Your task to perform on an android device: change notification settings in the gmail app Image 0: 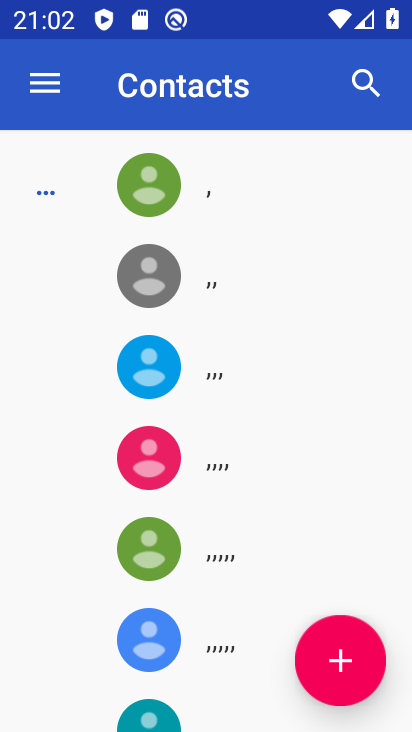
Step 0: press back button
Your task to perform on an android device: change notification settings in the gmail app Image 1: 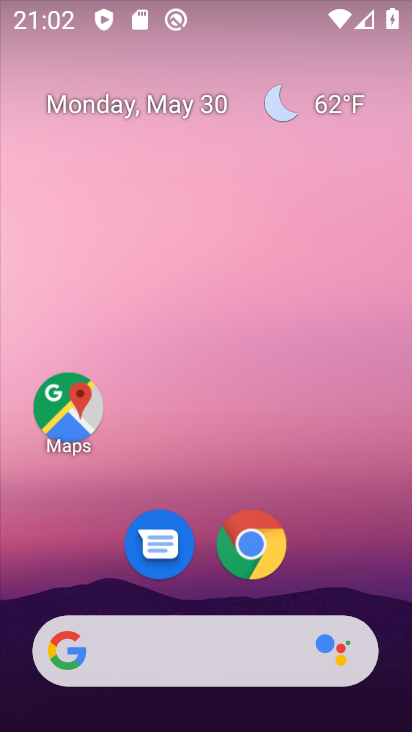
Step 1: drag from (340, 571) to (368, 251)
Your task to perform on an android device: change notification settings in the gmail app Image 2: 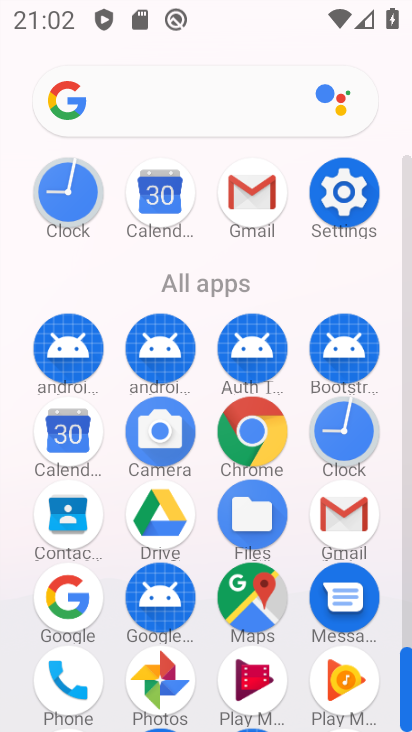
Step 2: click (249, 190)
Your task to perform on an android device: change notification settings in the gmail app Image 3: 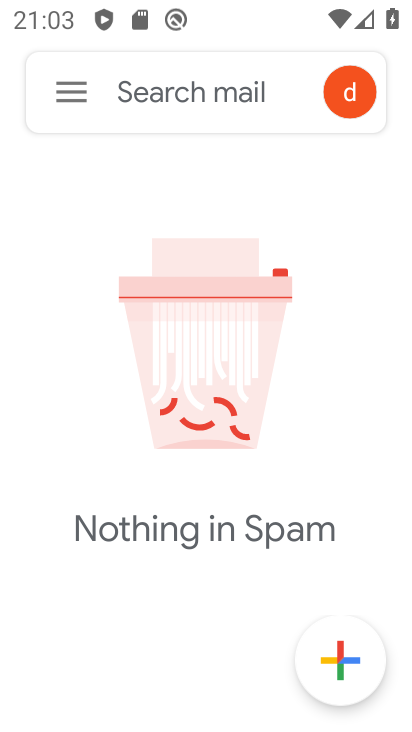
Step 3: click (69, 99)
Your task to perform on an android device: change notification settings in the gmail app Image 4: 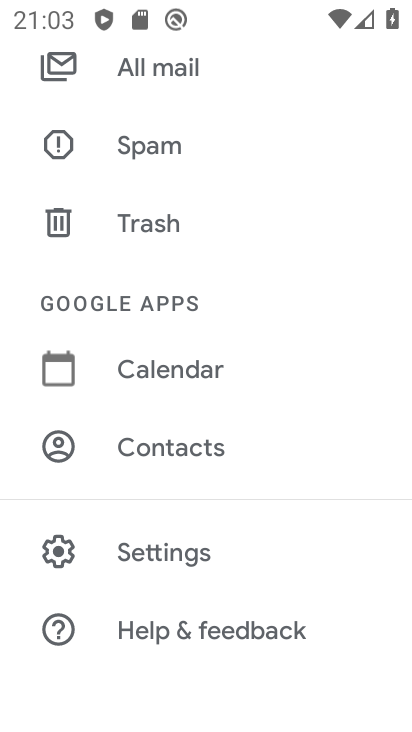
Step 4: click (180, 563)
Your task to perform on an android device: change notification settings in the gmail app Image 5: 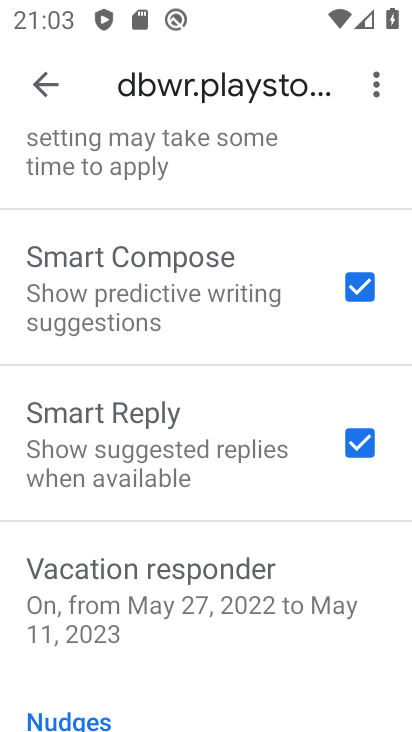
Step 5: drag from (166, 676) to (157, 512)
Your task to perform on an android device: change notification settings in the gmail app Image 6: 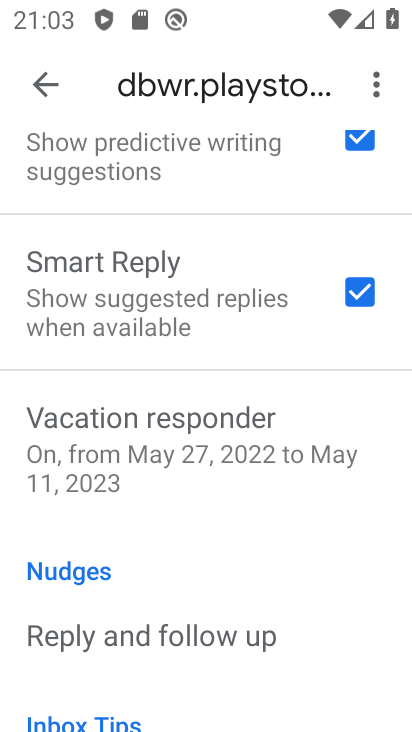
Step 6: drag from (201, 246) to (205, 397)
Your task to perform on an android device: change notification settings in the gmail app Image 7: 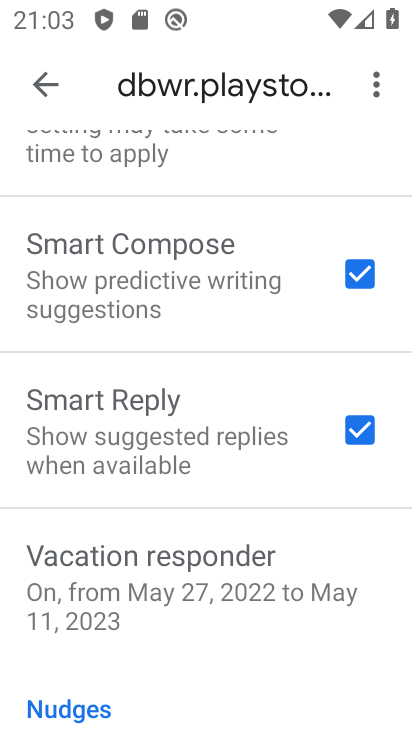
Step 7: drag from (173, 214) to (206, 417)
Your task to perform on an android device: change notification settings in the gmail app Image 8: 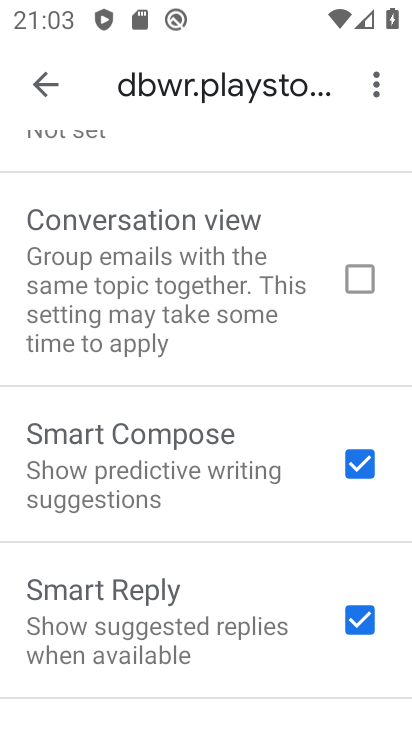
Step 8: drag from (188, 200) to (211, 339)
Your task to perform on an android device: change notification settings in the gmail app Image 9: 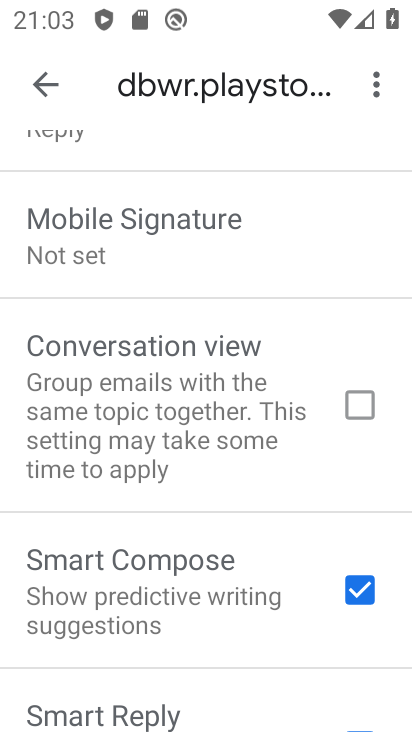
Step 9: drag from (213, 272) to (236, 401)
Your task to perform on an android device: change notification settings in the gmail app Image 10: 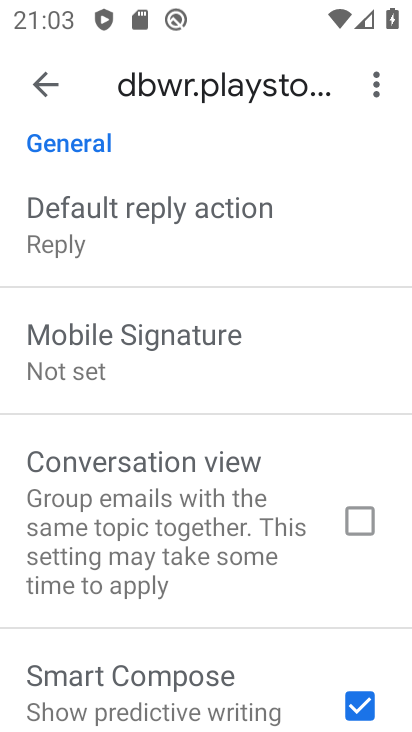
Step 10: drag from (200, 295) to (222, 372)
Your task to perform on an android device: change notification settings in the gmail app Image 11: 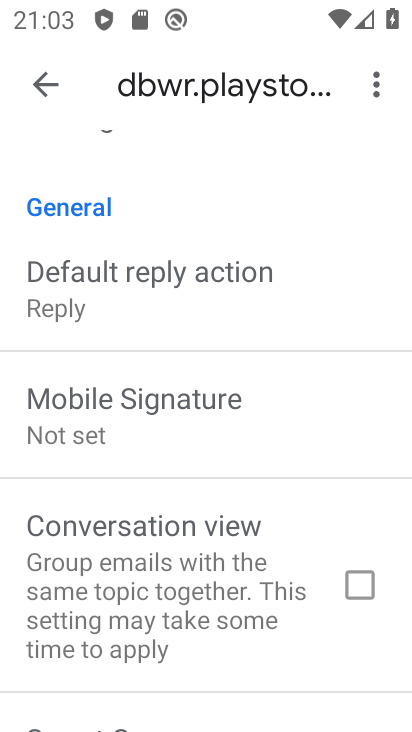
Step 11: drag from (178, 226) to (202, 427)
Your task to perform on an android device: change notification settings in the gmail app Image 12: 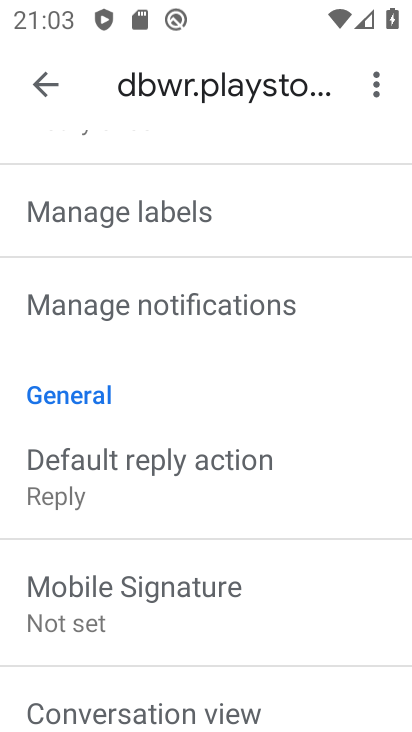
Step 12: click (161, 321)
Your task to perform on an android device: change notification settings in the gmail app Image 13: 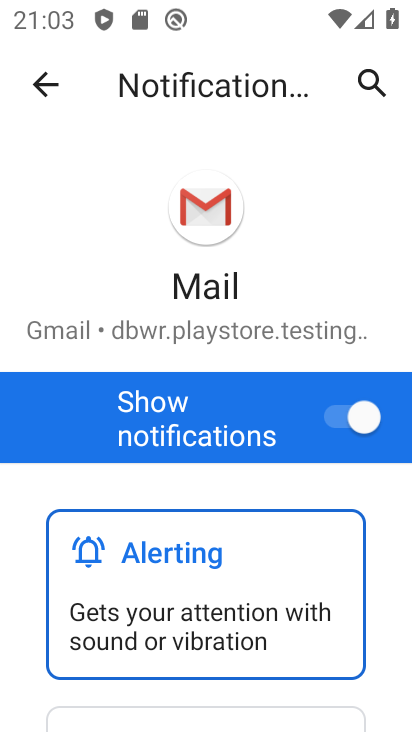
Step 13: click (338, 421)
Your task to perform on an android device: change notification settings in the gmail app Image 14: 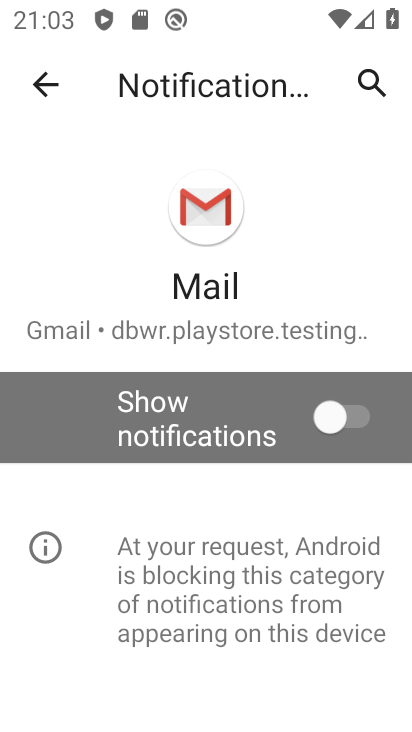
Step 14: task complete